Your task to perform on an android device: Open sound settings Image 0: 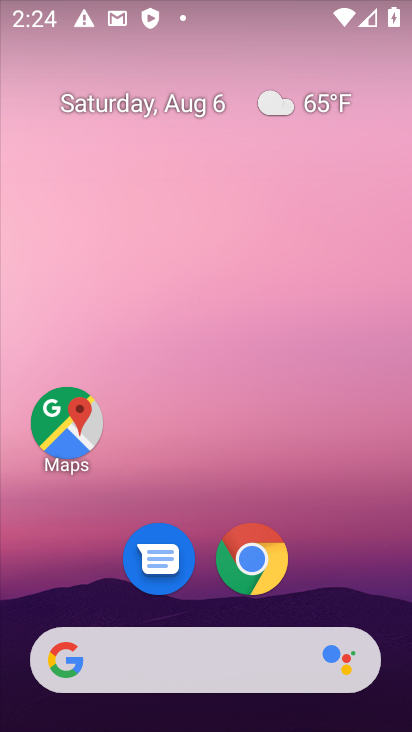
Step 0: drag from (214, 508) to (221, 158)
Your task to perform on an android device: Open sound settings Image 1: 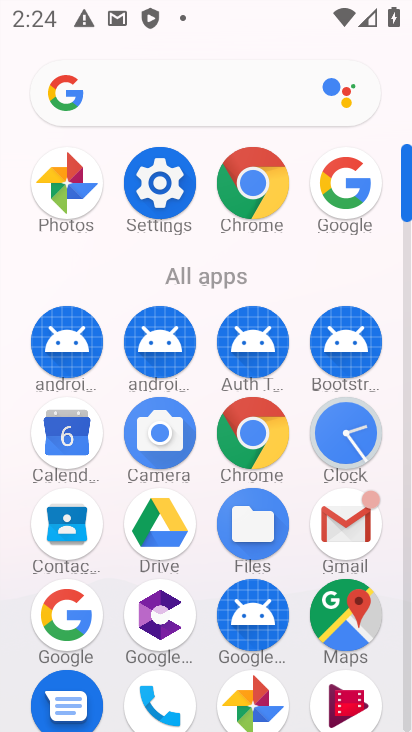
Step 1: click (160, 183)
Your task to perform on an android device: Open sound settings Image 2: 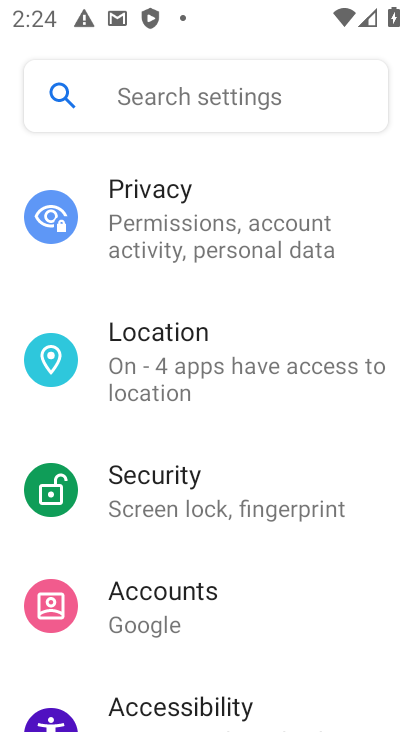
Step 2: drag from (209, 250) to (247, 579)
Your task to perform on an android device: Open sound settings Image 3: 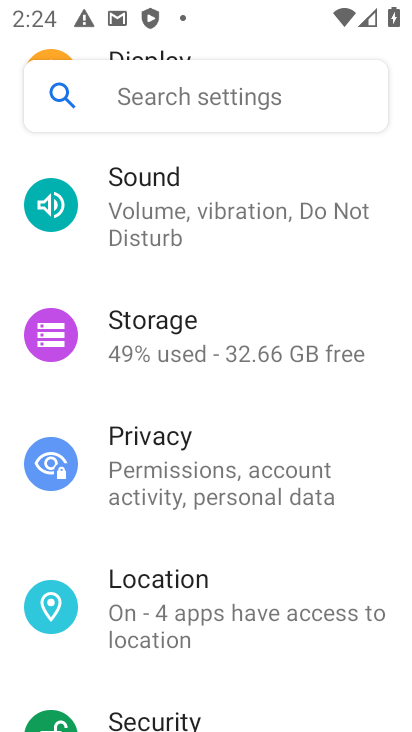
Step 3: click (195, 227)
Your task to perform on an android device: Open sound settings Image 4: 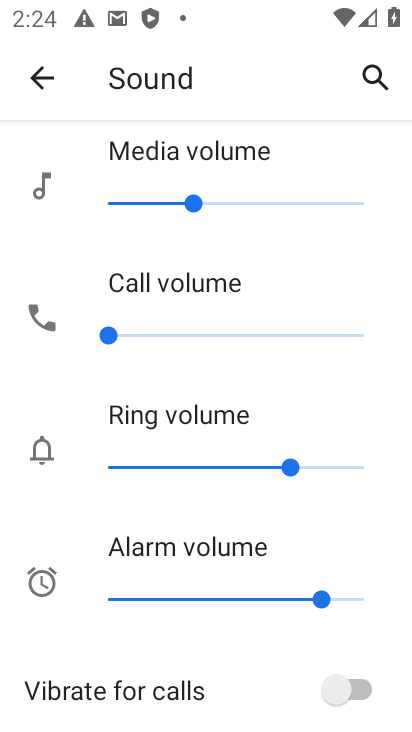
Step 4: task complete